Your task to perform on an android device: show emergency info Image 0: 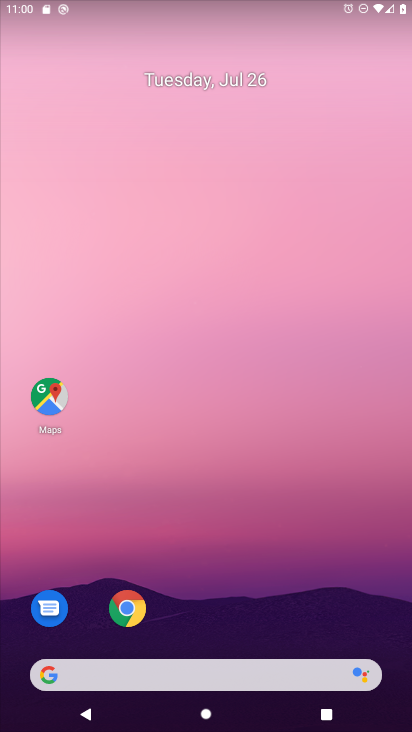
Step 0: drag from (268, 610) to (267, 132)
Your task to perform on an android device: show emergency info Image 1: 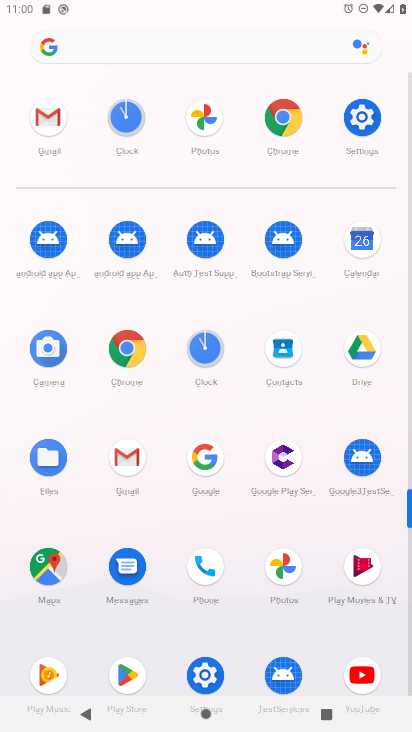
Step 1: click (363, 121)
Your task to perform on an android device: show emergency info Image 2: 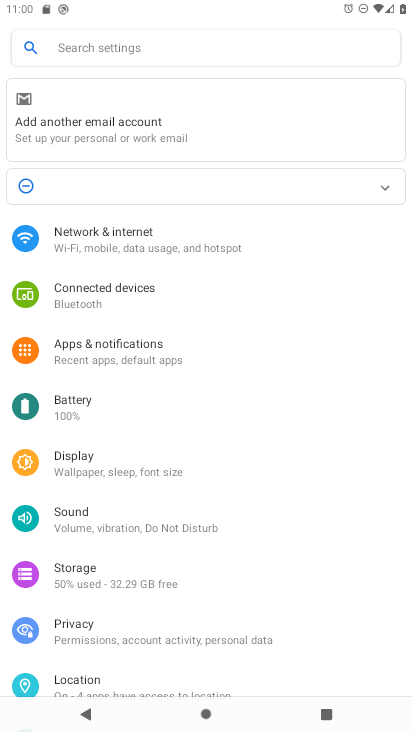
Step 2: drag from (204, 624) to (299, 117)
Your task to perform on an android device: show emergency info Image 3: 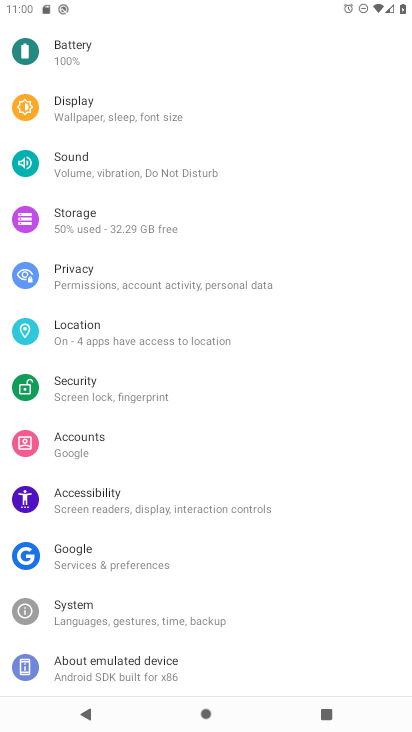
Step 3: click (133, 660)
Your task to perform on an android device: show emergency info Image 4: 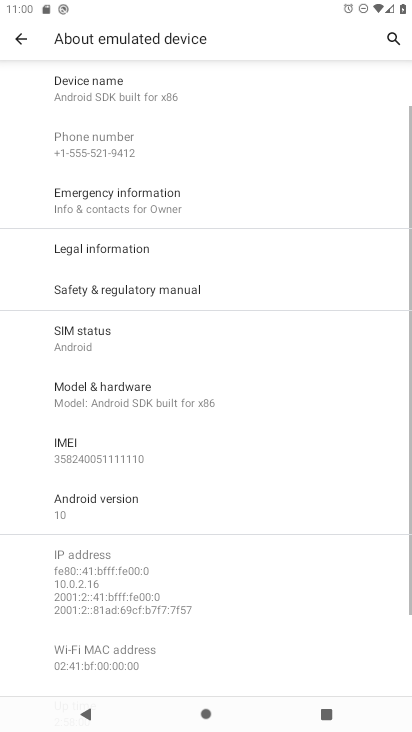
Step 4: click (165, 196)
Your task to perform on an android device: show emergency info Image 5: 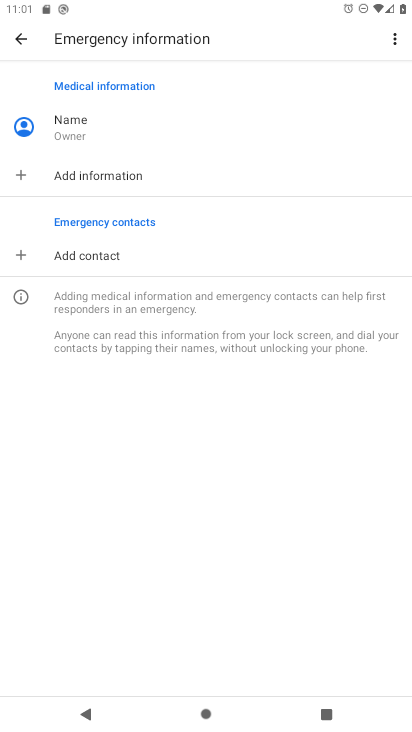
Step 5: task complete